Your task to perform on an android device: Go to internet settings Image 0: 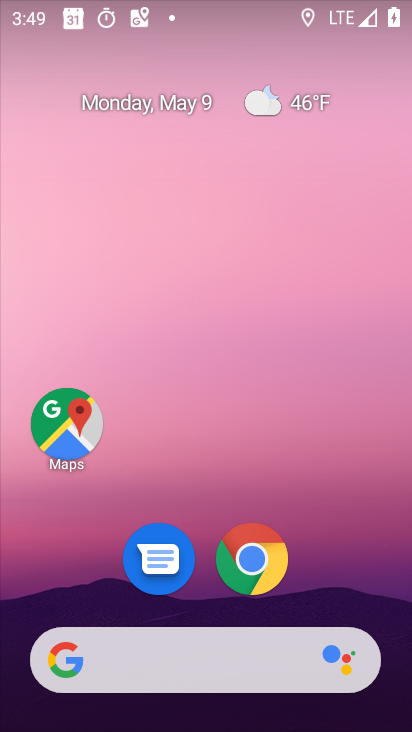
Step 0: drag from (332, 550) to (289, 12)
Your task to perform on an android device: Go to internet settings Image 1: 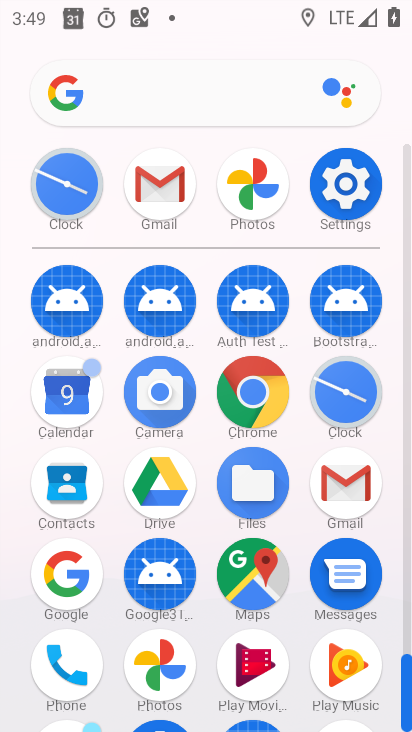
Step 1: click (346, 180)
Your task to perform on an android device: Go to internet settings Image 2: 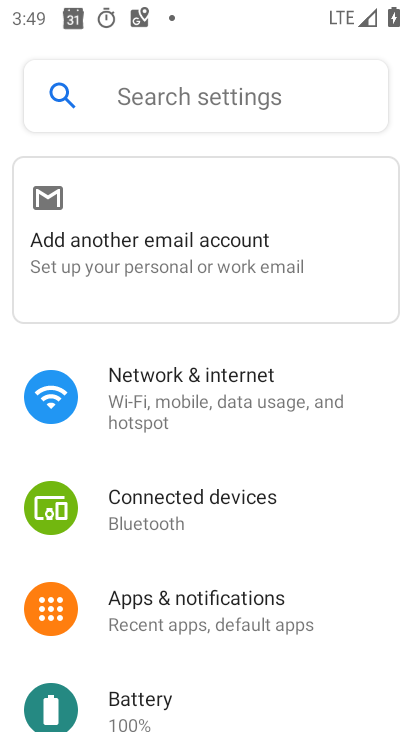
Step 2: click (236, 377)
Your task to perform on an android device: Go to internet settings Image 3: 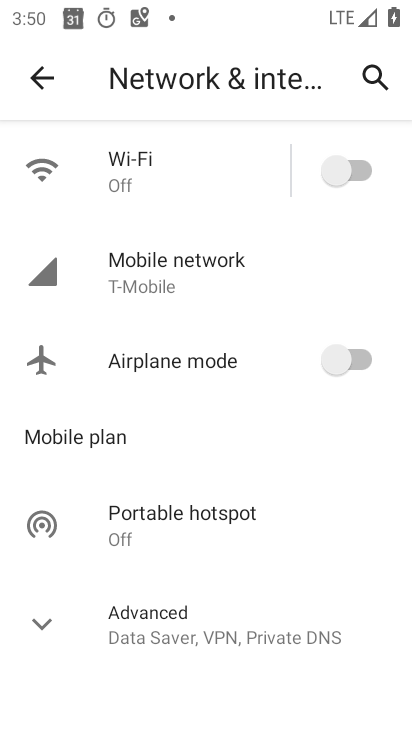
Step 3: click (134, 157)
Your task to perform on an android device: Go to internet settings Image 4: 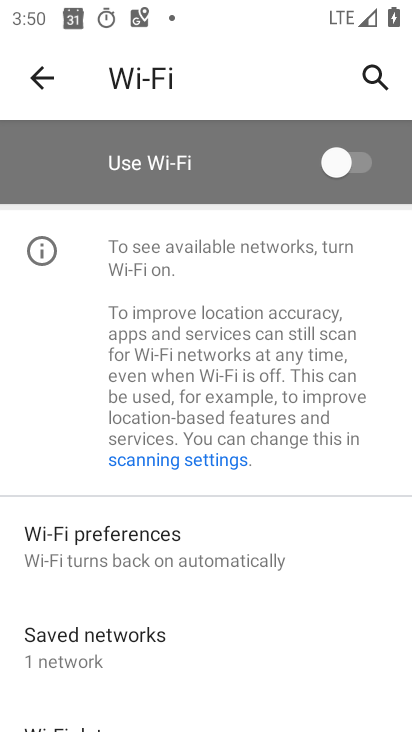
Step 4: task complete